Your task to perform on an android device: Open accessibility settings Image 0: 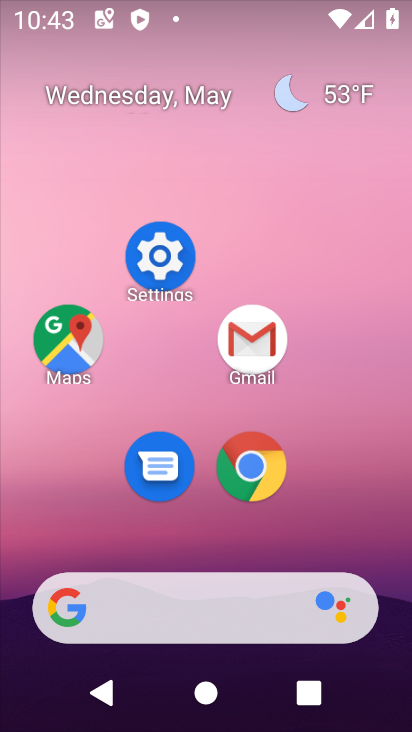
Step 0: click (152, 264)
Your task to perform on an android device: Open accessibility settings Image 1: 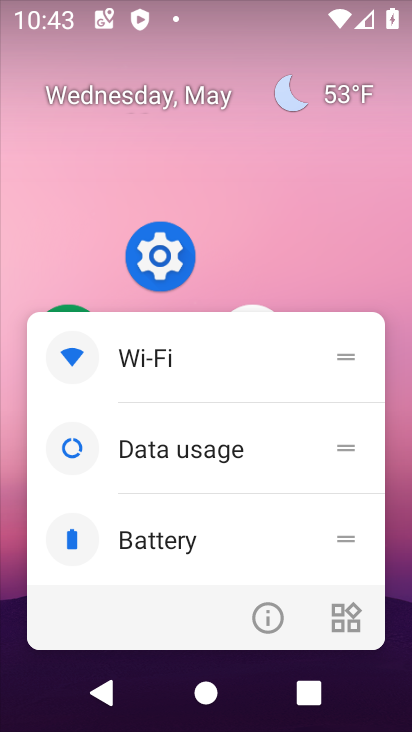
Step 1: click (264, 624)
Your task to perform on an android device: Open accessibility settings Image 2: 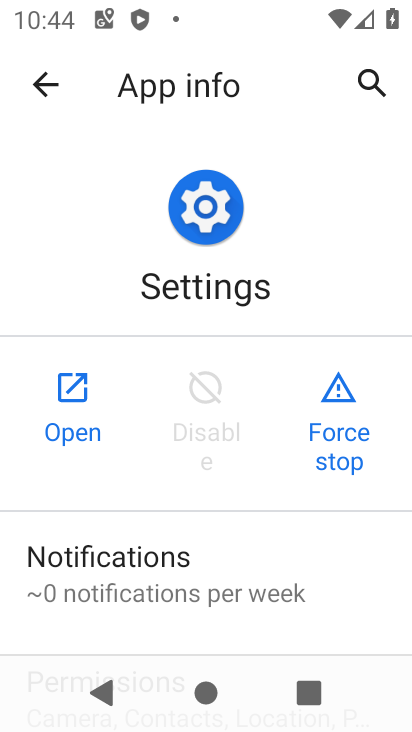
Step 2: click (78, 409)
Your task to perform on an android device: Open accessibility settings Image 3: 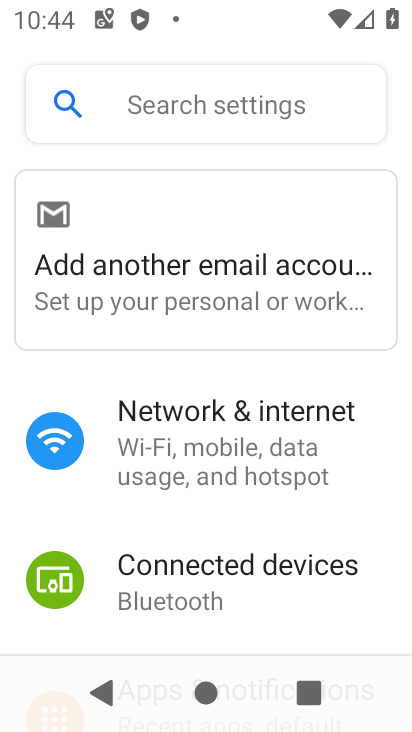
Step 3: drag from (184, 571) to (279, 160)
Your task to perform on an android device: Open accessibility settings Image 4: 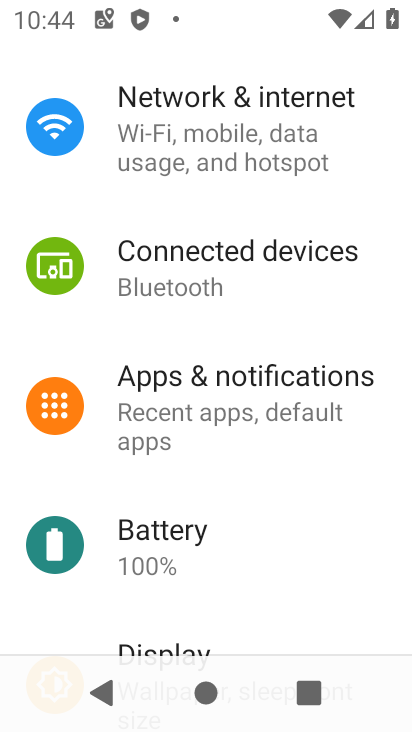
Step 4: drag from (227, 486) to (315, 175)
Your task to perform on an android device: Open accessibility settings Image 5: 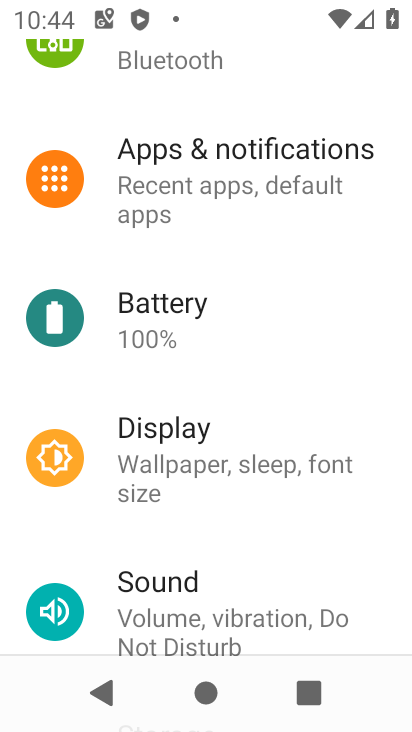
Step 5: drag from (195, 544) to (328, 171)
Your task to perform on an android device: Open accessibility settings Image 6: 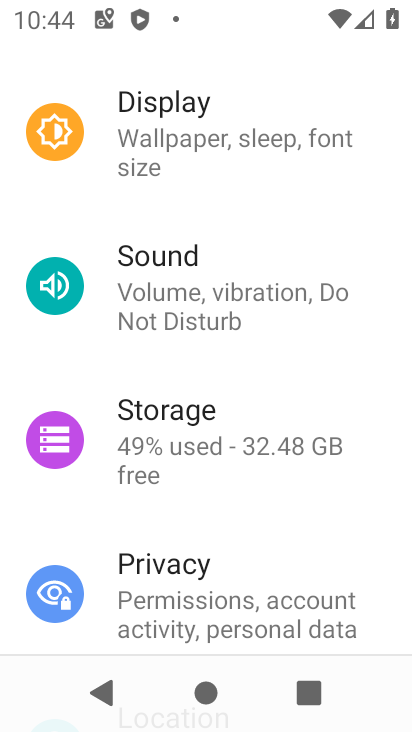
Step 6: drag from (178, 617) to (285, 304)
Your task to perform on an android device: Open accessibility settings Image 7: 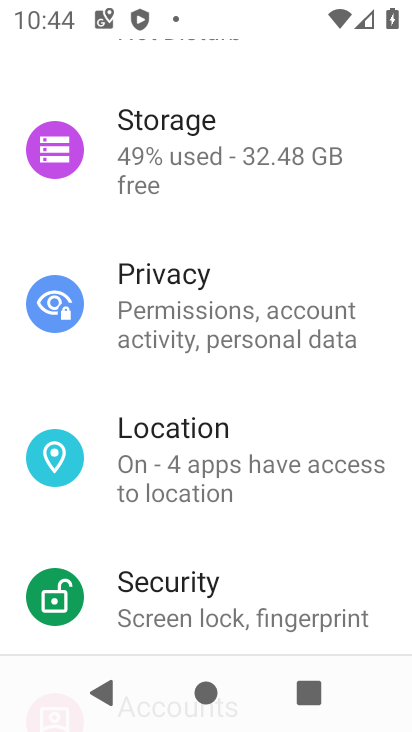
Step 7: drag from (200, 594) to (267, 338)
Your task to perform on an android device: Open accessibility settings Image 8: 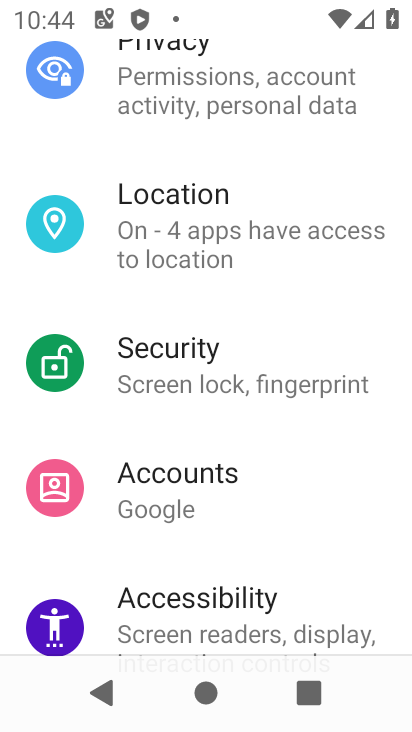
Step 8: click (205, 600)
Your task to perform on an android device: Open accessibility settings Image 9: 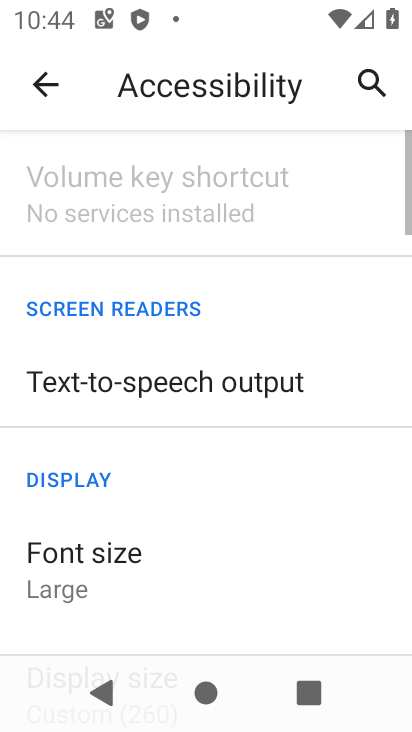
Step 9: task complete